Your task to perform on an android device: check storage Image 0: 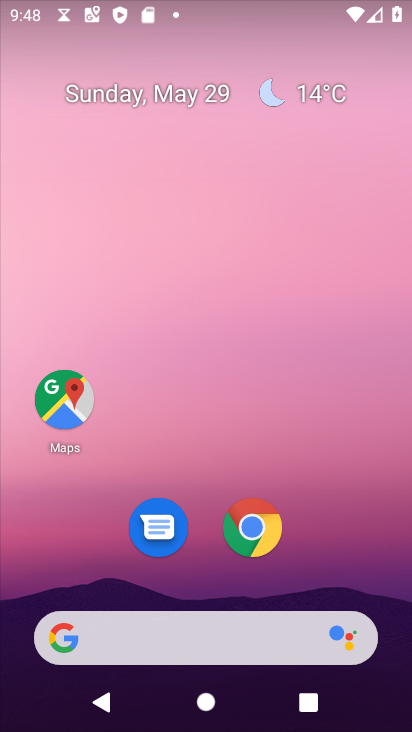
Step 0: press home button
Your task to perform on an android device: check storage Image 1: 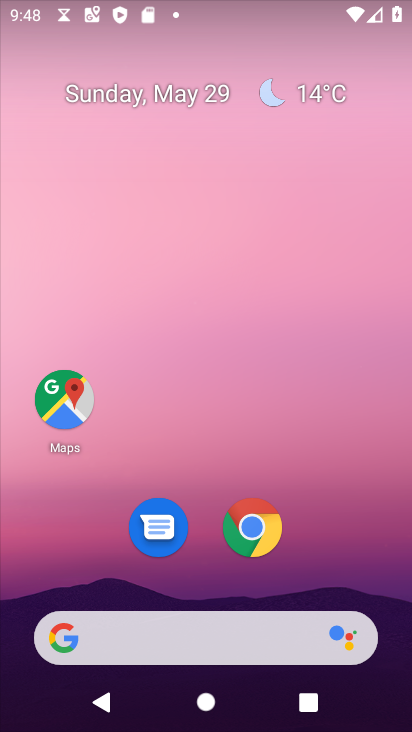
Step 1: drag from (169, 642) to (326, 75)
Your task to perform on an android device: check storage Image 2: 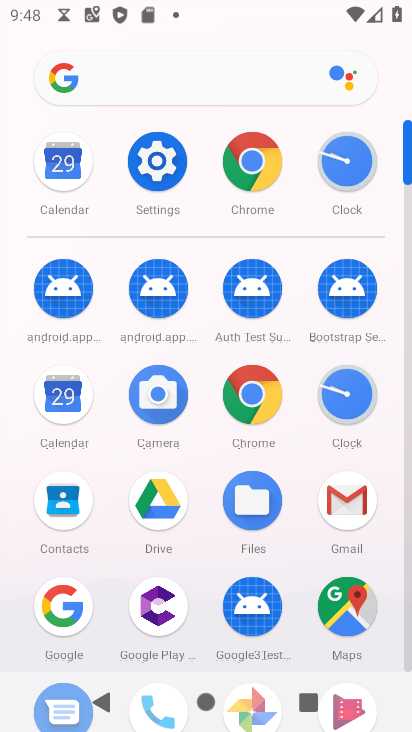
Step 2: click (159, 179)
Your task to perform on an android device: check storage Image 3: 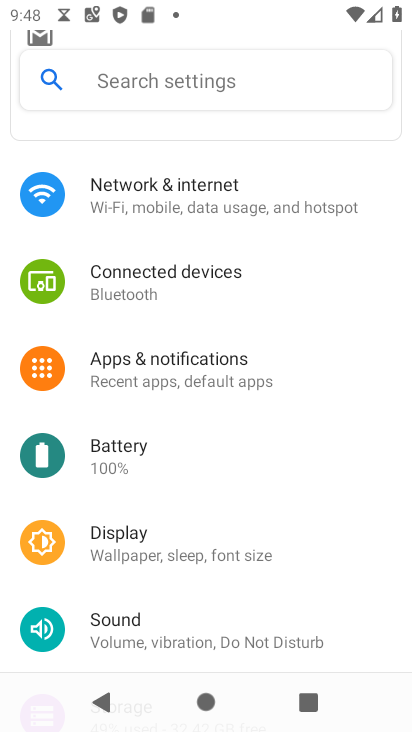
Step 3: drag from (284, 614) to (347, 116)
Your task to perform on an android device: check storage Image 4: 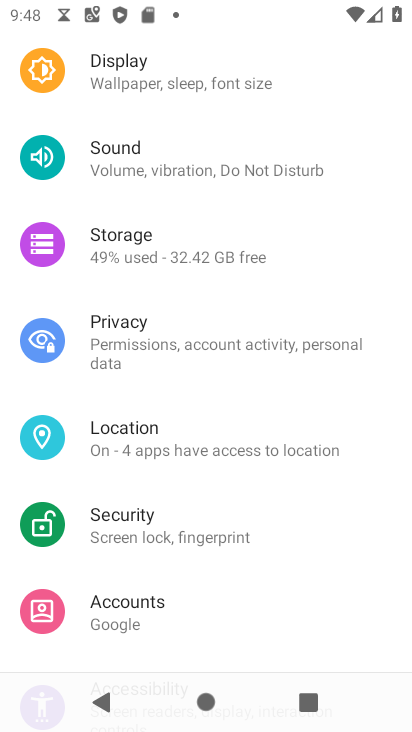
Step 4: click (137, 249)
Your task to perform on an android device: check storage Image 5: 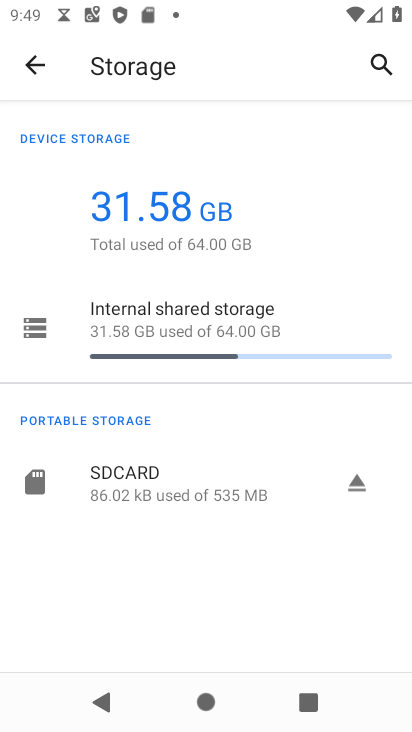
Step 5: task complete